Your task to perform on an android device: What's on the menu at Denny's? Image 0: 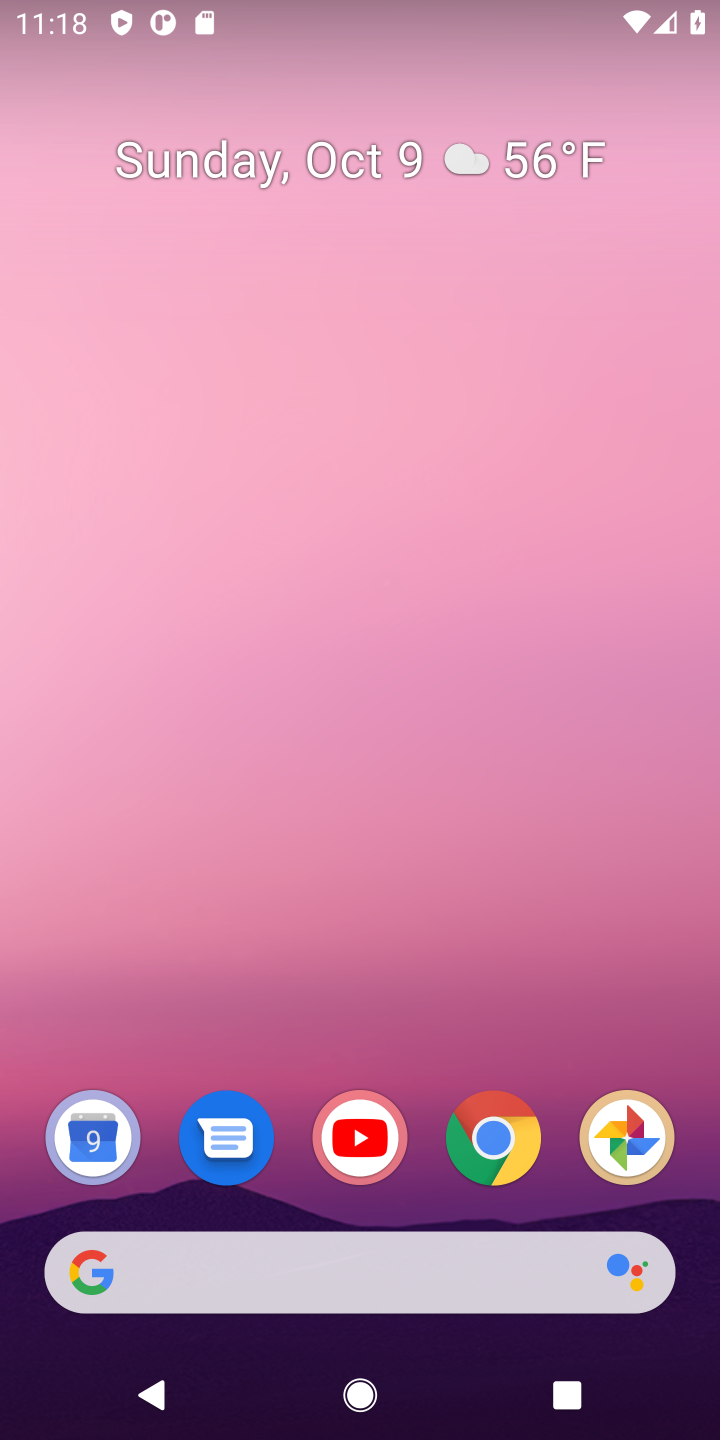
Step 0: drag from (351, 1004) to (478, 0)
Your task to perform on an android device: What's on the menu at Denny's? Image 1: 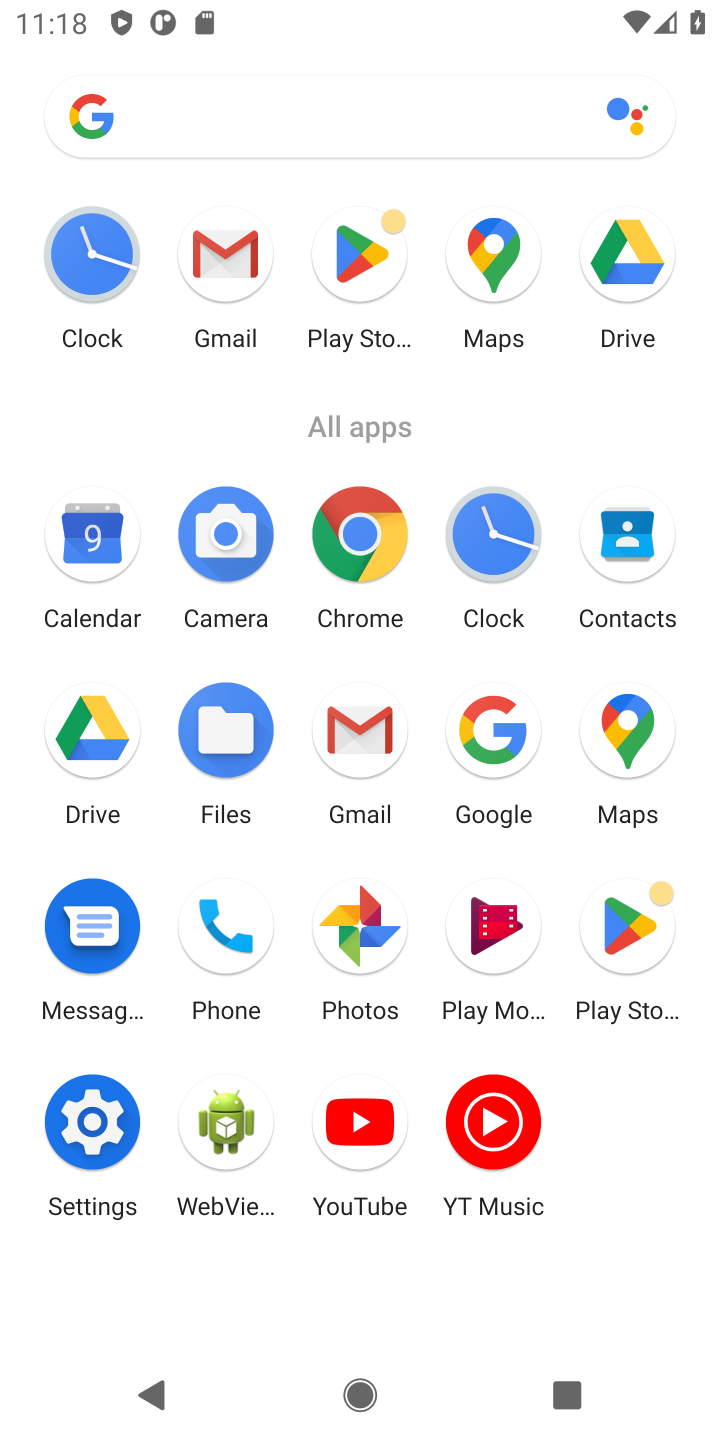
Step 1: click (345, 545)
Your task to perform on an android device: What's on the menu at Denny's? Image 2: 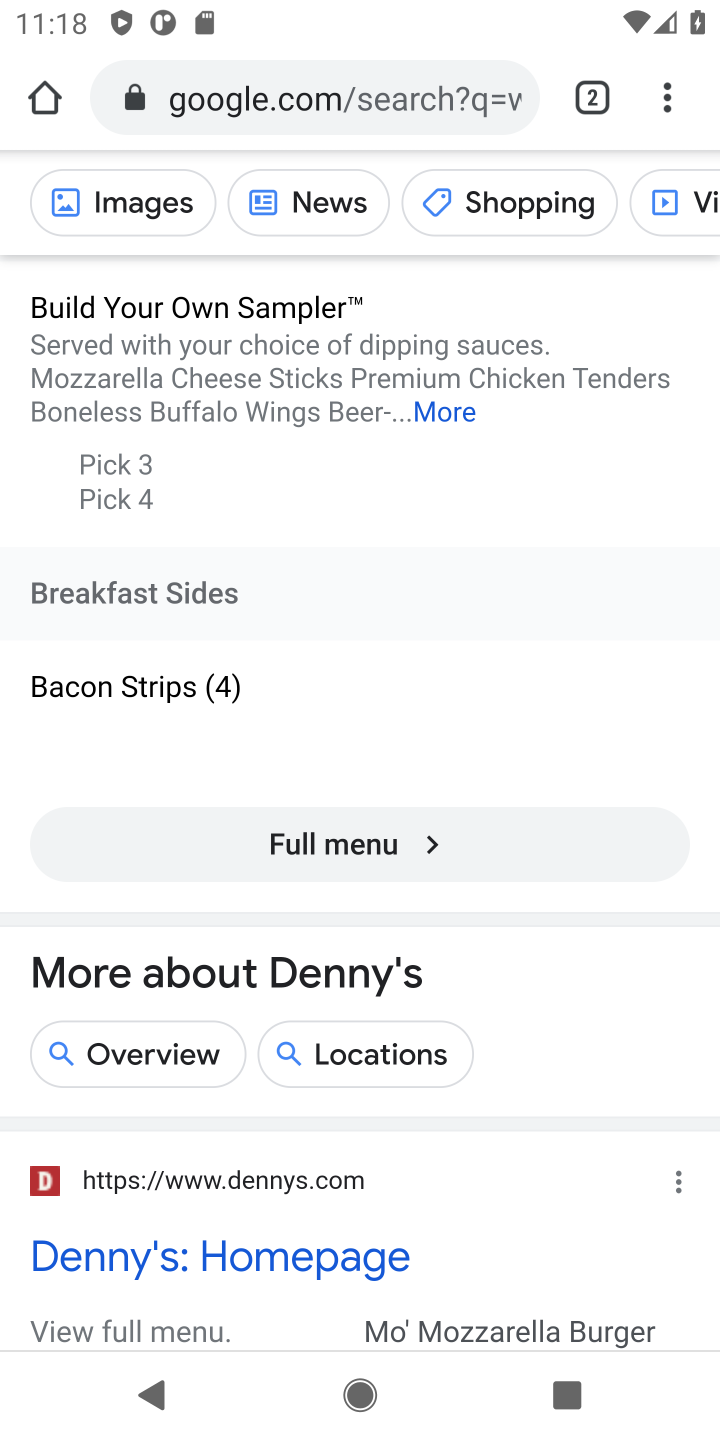
Step 2: click (317, 88)
Your task to perform on an android device: What's on the menu at Denny's? Image 3: 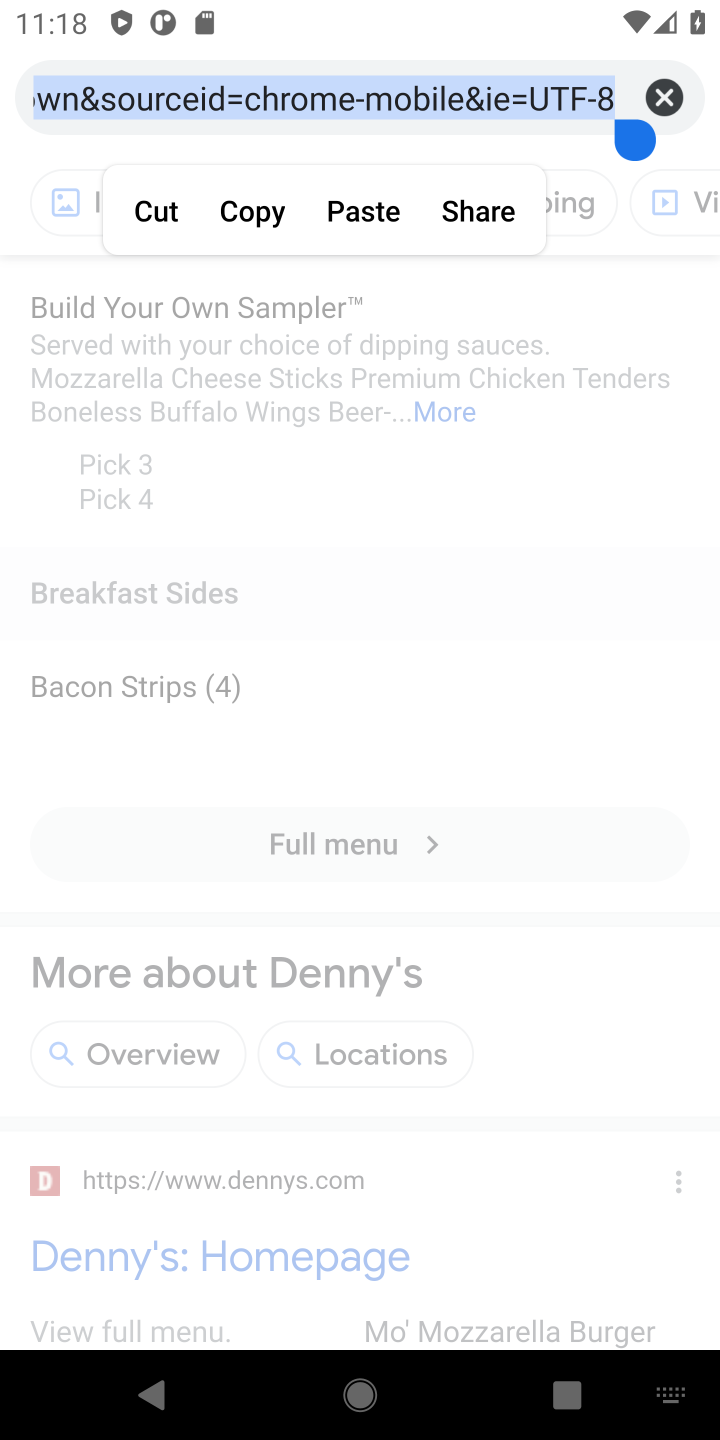
Step 3: click (677, 93)
Your task to perform on an android device: What's on the menu at Denny's? Image 4: 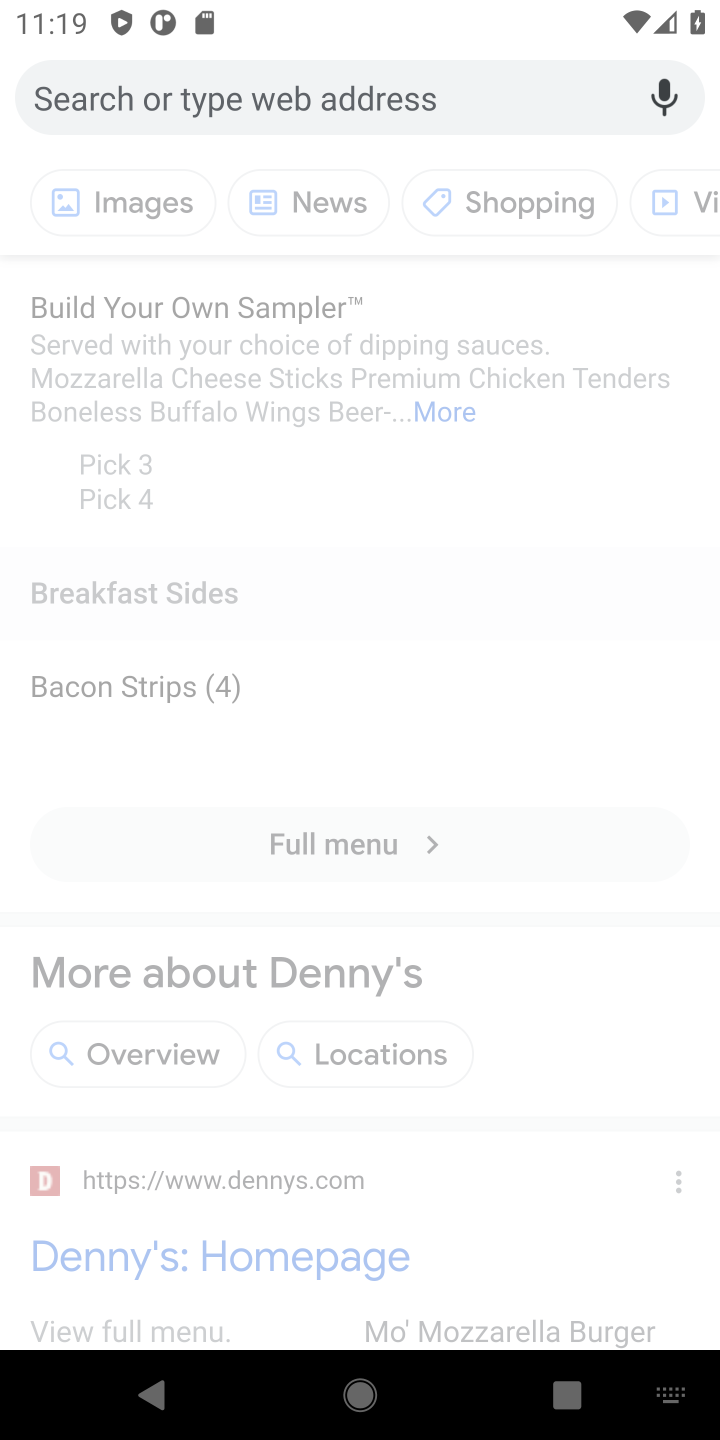
Step 4: type "What's on the menu at Denny's?"
Your task to perform on an android device: What's on the menu at Denny's? Image 5: 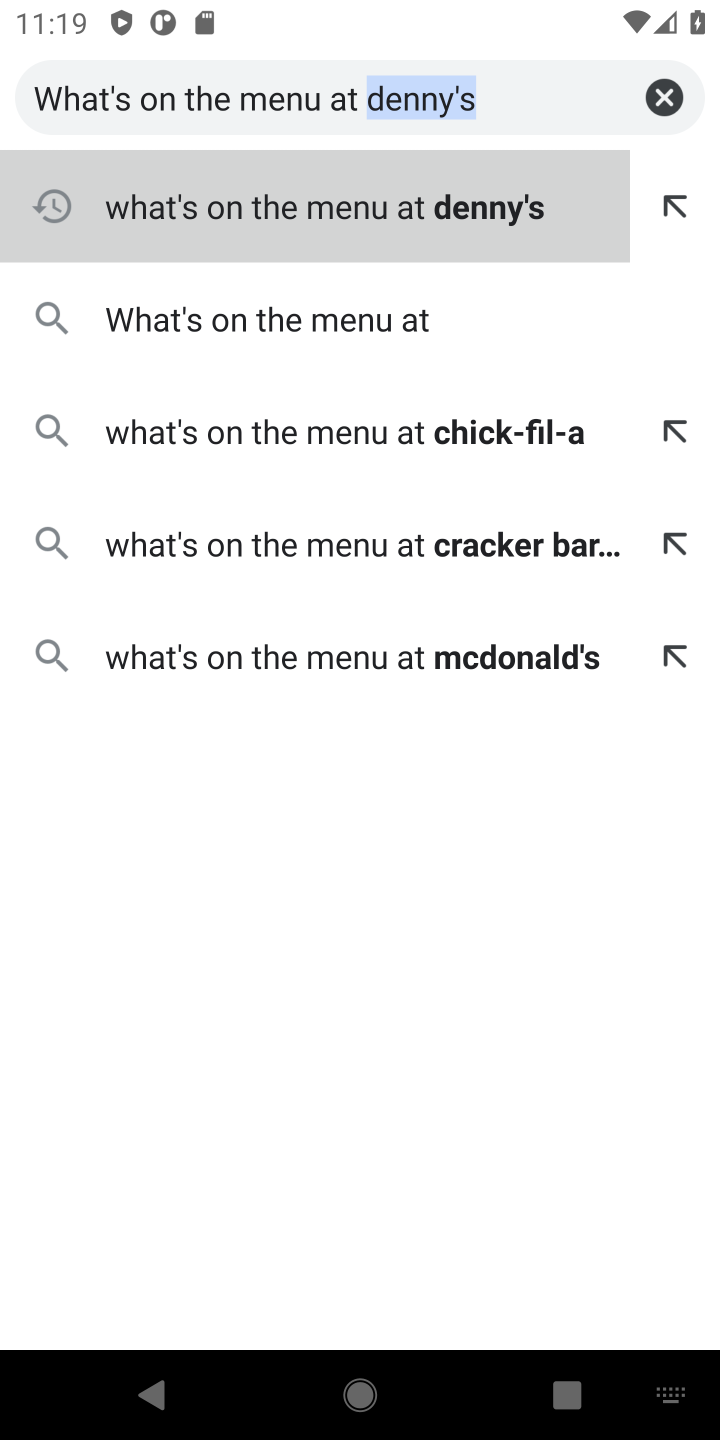
Step 5: click (316, 208)
Your task to perform on an android device: What's on the menu at Denny's? Image 6: 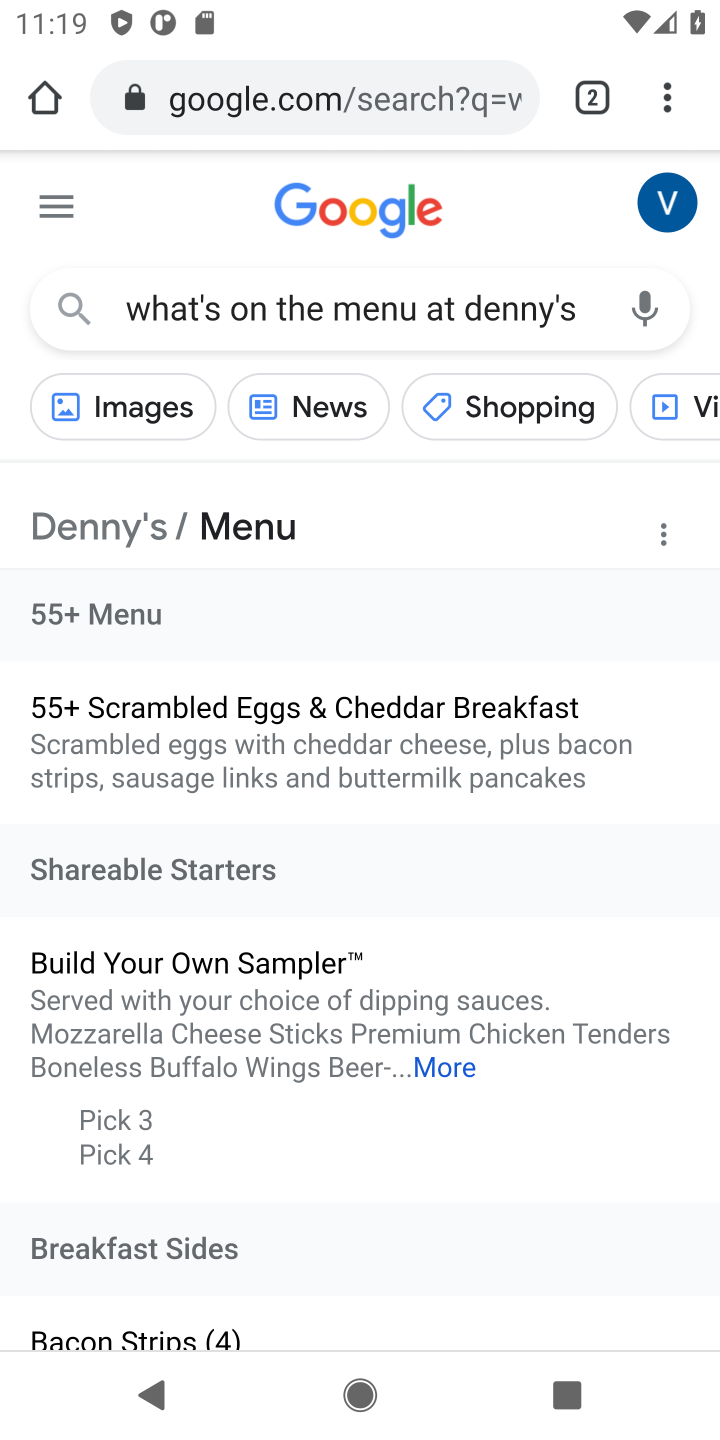
Step 6: task complete